Your task to perform on an android device: delete a single message in the gmail app Image 0: 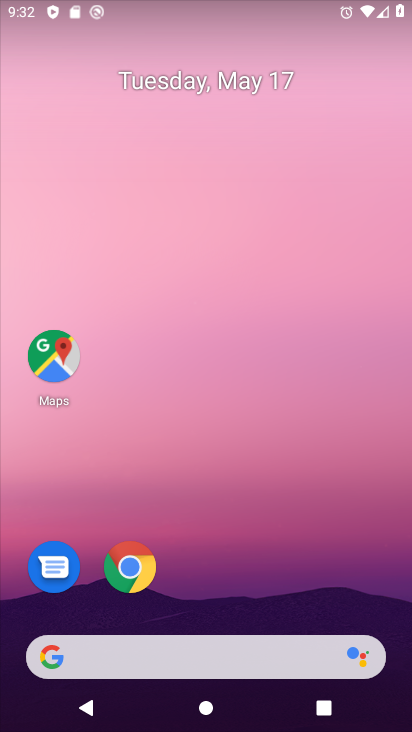
Step 0: drag from (216, 613) to (186, 124)
Your task to perform on an android device: delete a single message in the gmail app Image 1: 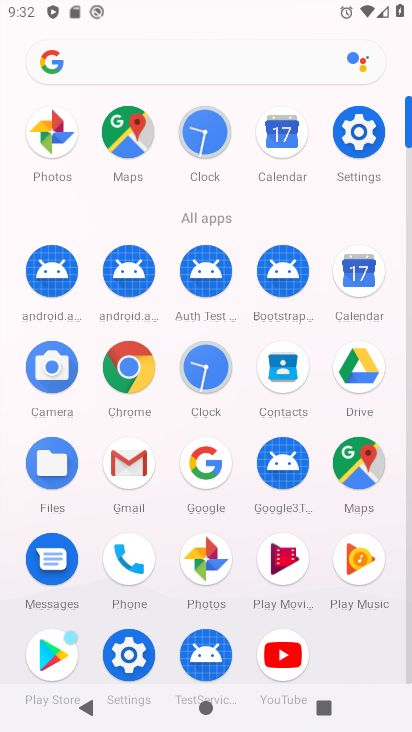
Step 1: click (131, 490)
Your task to perform on an android device: delete a single message in the gmail app Image 2: 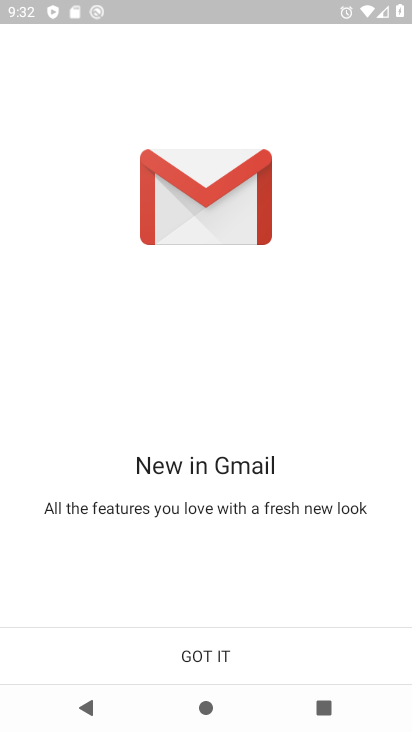
Step 2: click (210, 649)
Your task to perform on an android device: delete a single message in the gmail app Image 3: 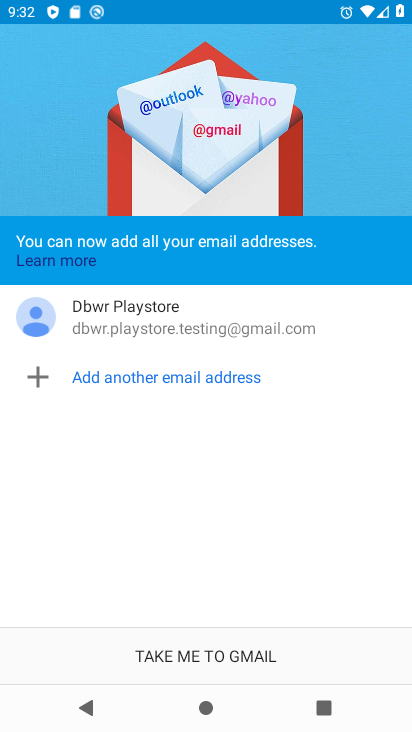
Step 3: click (210, 649)
Your task to perform on an android device: delete a single message in the gmail app Image 4: 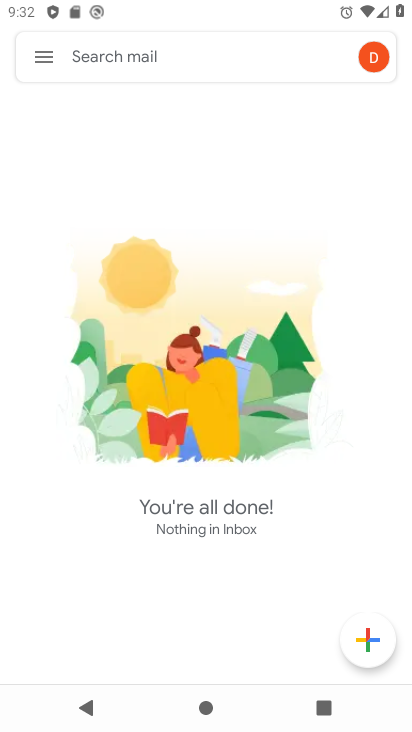
Step 4: click (45, 61)
Your task to perform on an android device: delete a single message in the gmail app Image 5: 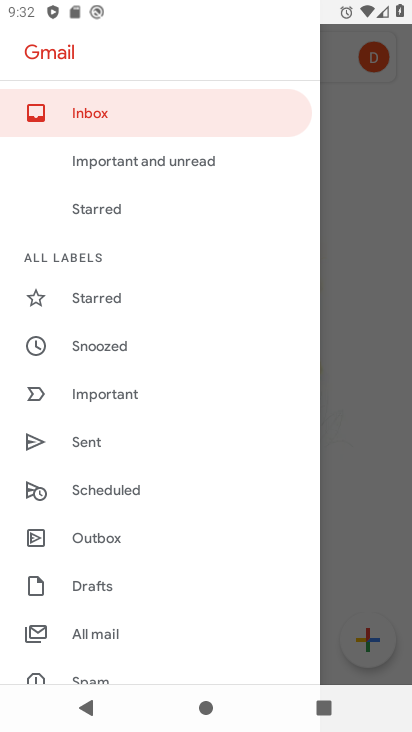
Step 5: click (137, 631)
Your task to perform on an android device: delete a single message in the gmail app Image 6: 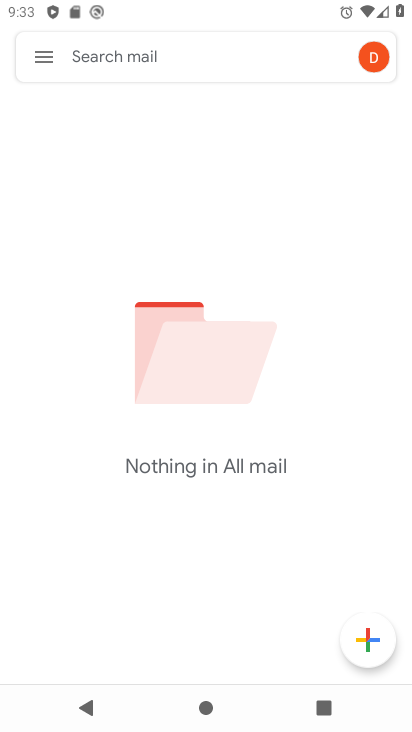
Step 6: task complete